Your task to perform on an android device: add a label to a message in the gmail app Image 0: 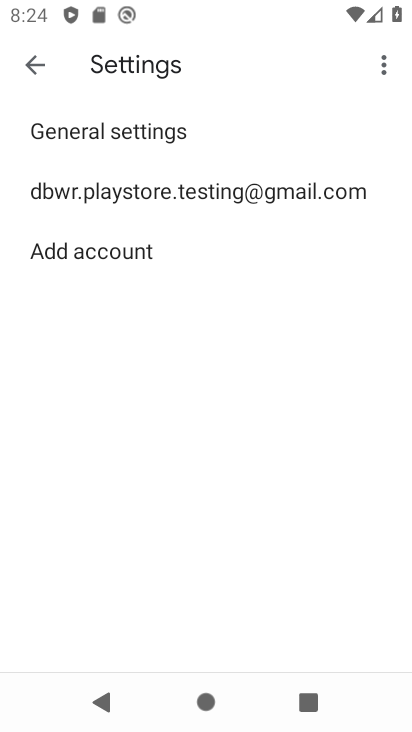
Step 0: press home button
Your task to perform on an android device: add a label to a message in the gmail app Image 1: 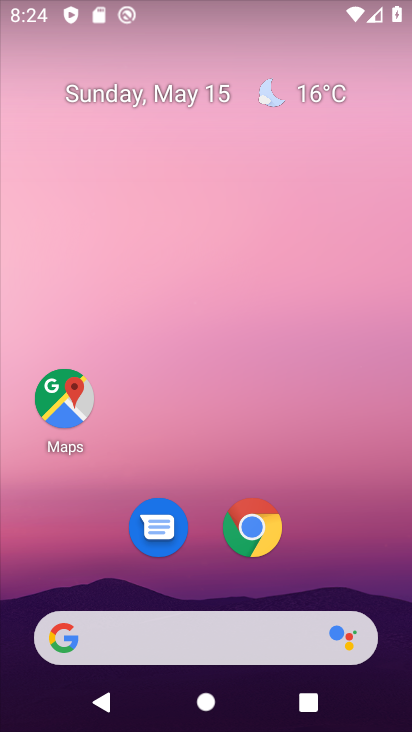
Step 1: drag from (352, 590) to (303, 0)
Your task to perform on an android device: add a label to a message in the gmail app Image 2: 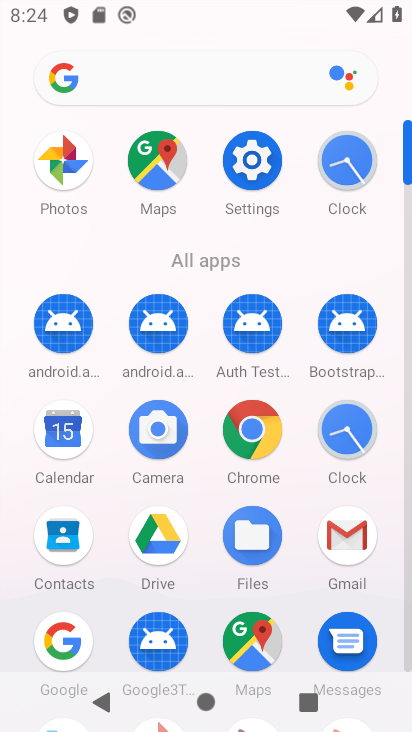
Step 2: click (343, 540)
Your task to perform on an android device: add a label to a message in the gmail app Image 3: 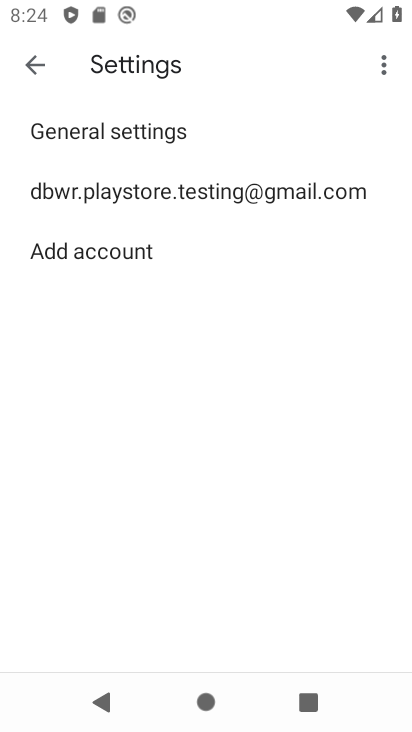
Step 3: click (27, 65)
Your task to perform on an android device: add a label to a message in the gmail app Image 4: 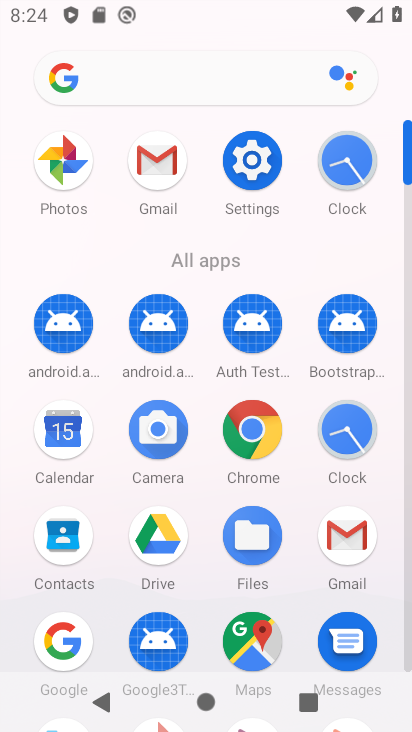
Step 4: click (366, 542)
Your task to perform on an android device: add a label to a message in the gmail app Image 5: 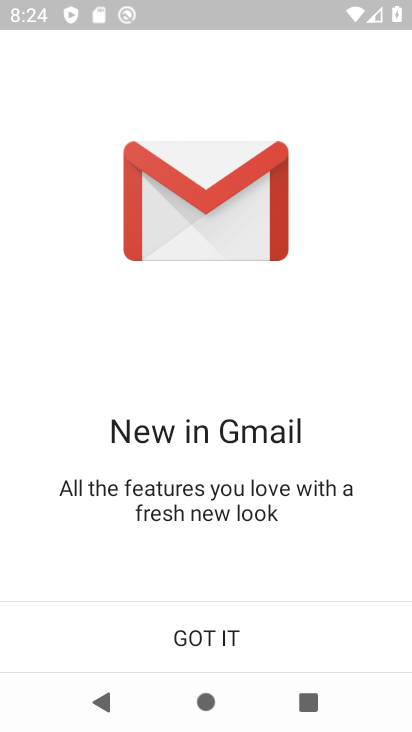
Step 5: click (236, 640)
Your task to perform on an android device: add a label to a message in the gmail app Image 6: 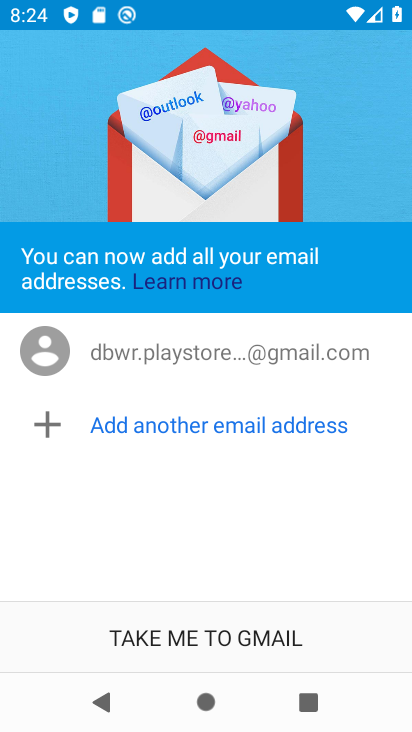
Step 6: click (236, 639)
Your task to perform on an android device: add a label to a message in the gmail app Image 7: 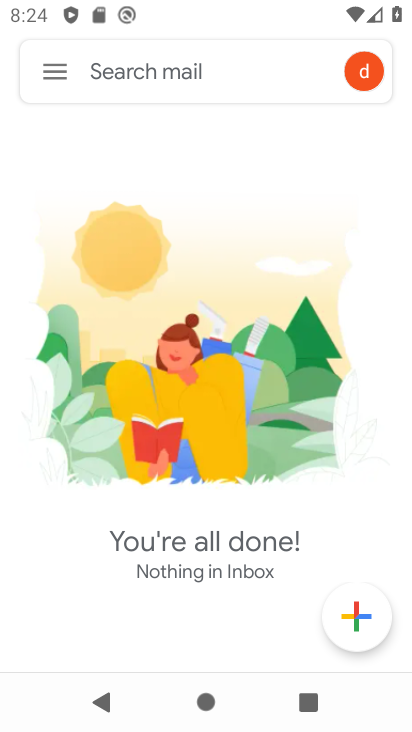
Step 7: click (54, 76)
Your task to perform on an android device: add a label to a message in the gmail app Image 8: 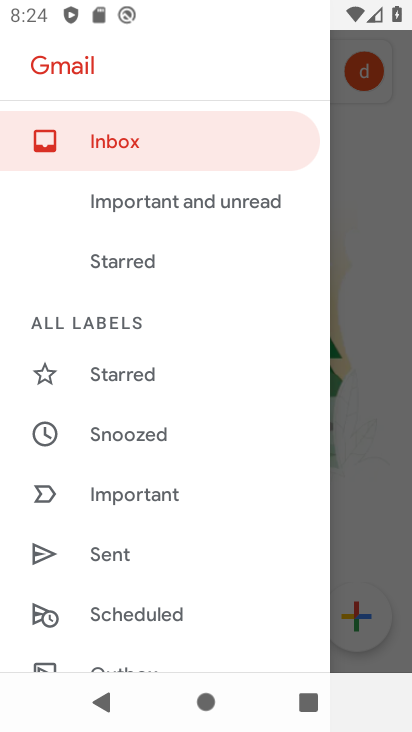
Step 8: drag from (237, 579) to (217, 178)
Your task to perform on an android device: add a label to a message in the gmail app Image 9: 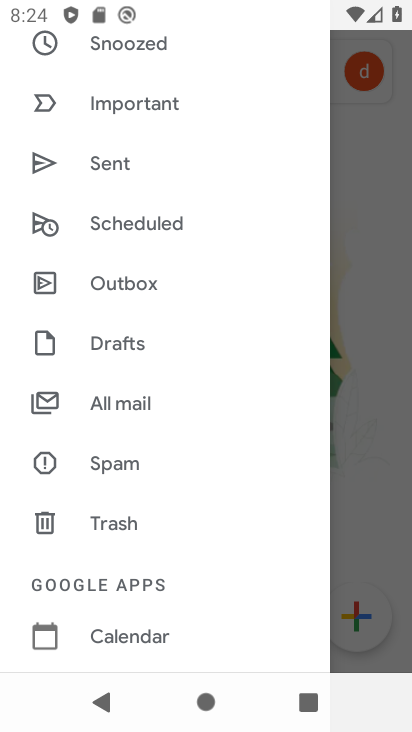
Step 9: drag from (205, 301) to (213, 407)
Your task to perform on an android device: add a label to a message in the gmail app Image 10: 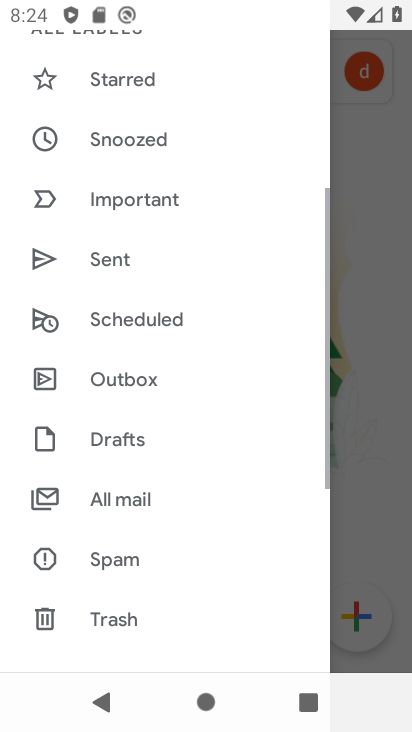
Step 10: click (143, 494)
Your task to perform on an android device: add a label to a message in the gmail app Image 11: 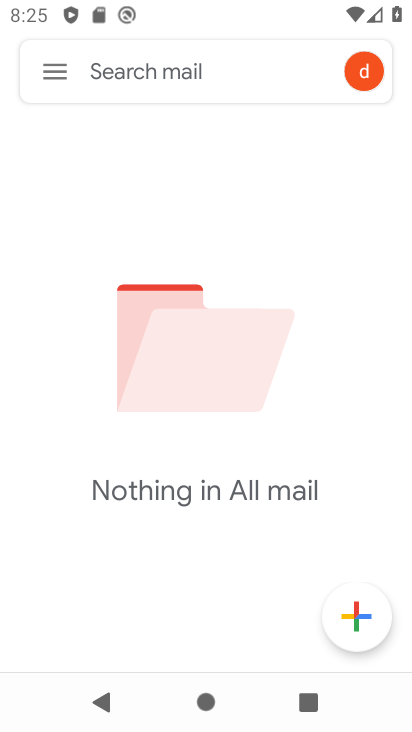
Step 11: task complete